Your task to perform on an android device: Go to notification settings Image 0: 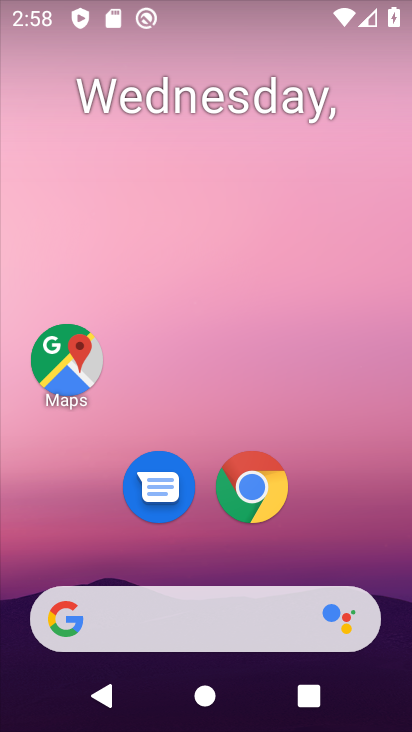
Step 0: drag from (358, 570) to (343, 110)
Your task to perform on an android device: Go to notification settings Image 1: 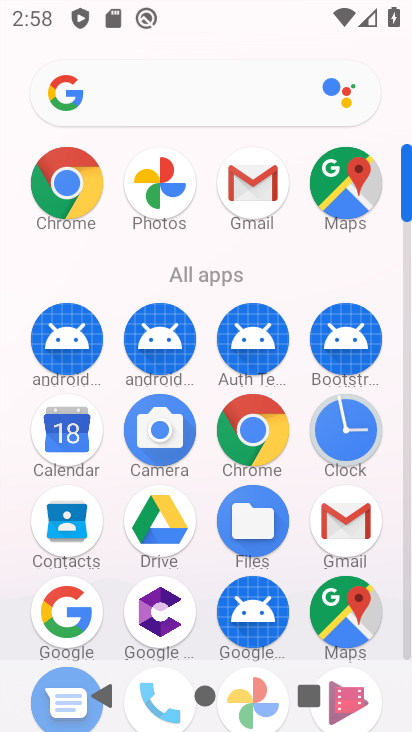
Step 1: drag from (207, 481) to (206, 210)
Your task to perform on an android device: Go to notification settings Image 2: 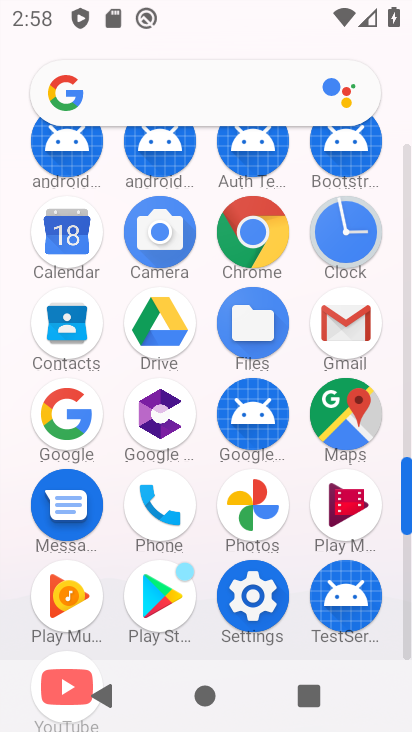
Step 2: click (257, 612)
Your task to perform on an android device: Go to notification settings Image 3: 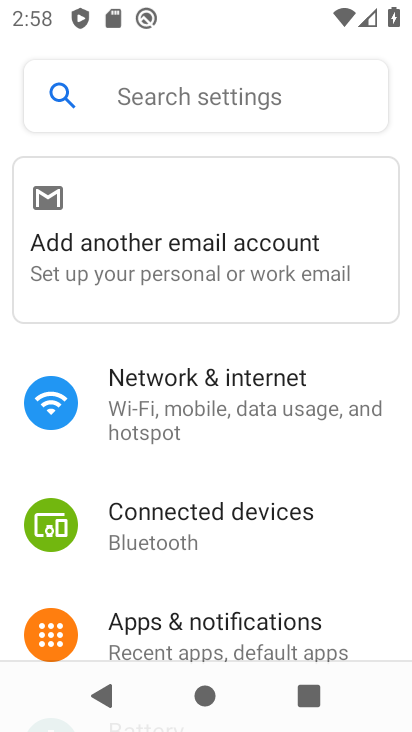
Step 3: drag from (335, 581) to (341, 417)
Your task to perform on an android device: Go to notification settings Image 4: 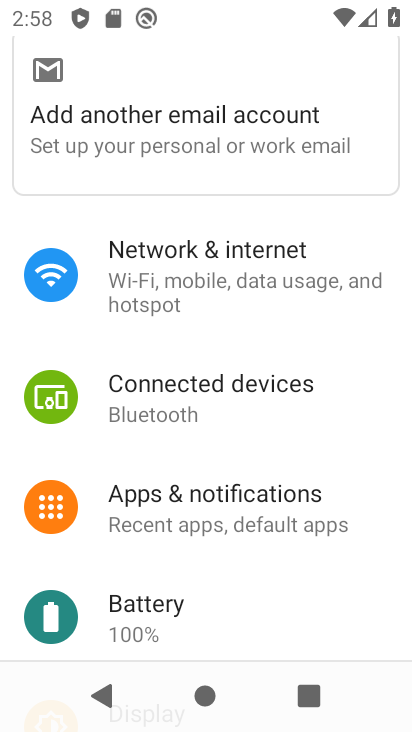
Step 4: drag from (361, 612) to (375, 482)
Your task to perform on an android device: Go to notification settings Image 5: 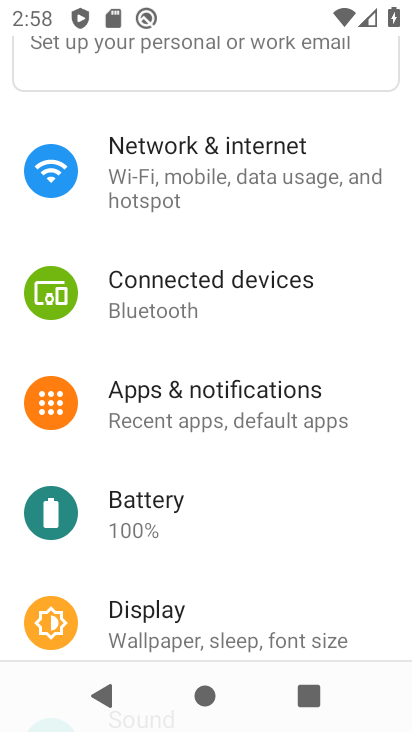
Step 5: drag from (346, 575) to (357, 460)
Your task to perform on an android device: Go to notification settings Image 6: 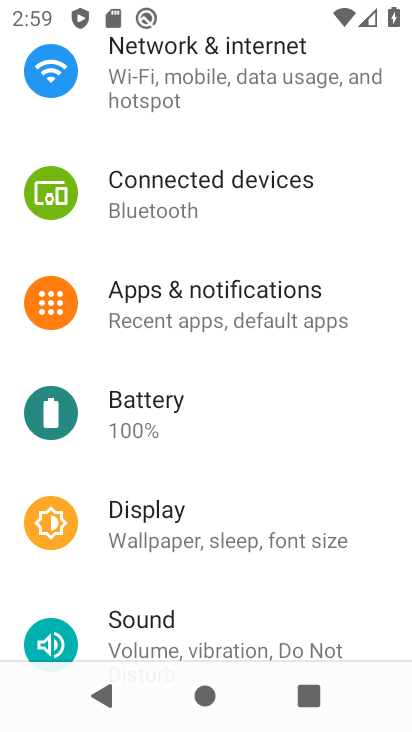
Step 6: drag from (332, 564) to (348, 378)
Your task to perform on an android device: Go to notification settings Image 7: 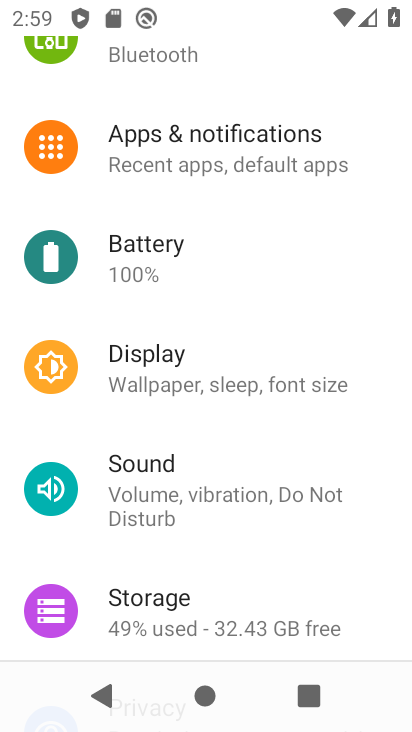
Step 7: drag from (332, 574) to (333, 419)
Your task to perform on an android device: Go to notification settings Image 8: 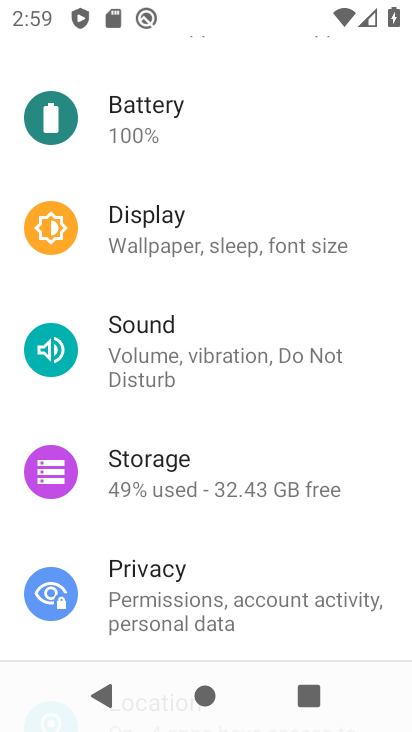
Step 8: drag from (325, 548) to (331, 418)
Your task to perform on an android device: Go to notification settings Image 9: 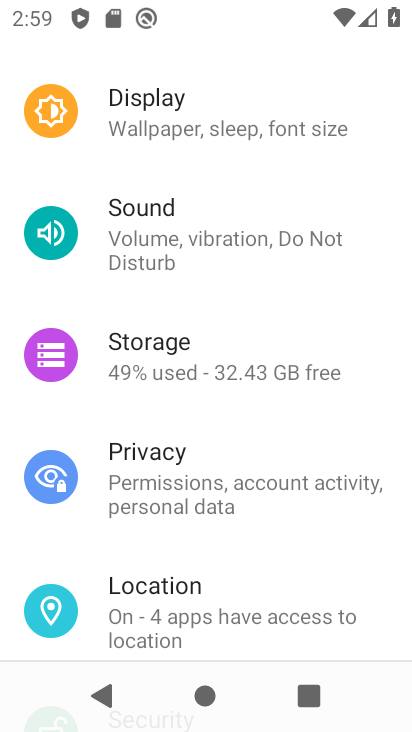
Step 9: drag from (323, 600) to (337, 489)
Your task to perform on an android device: Go to notification settings Image 10: 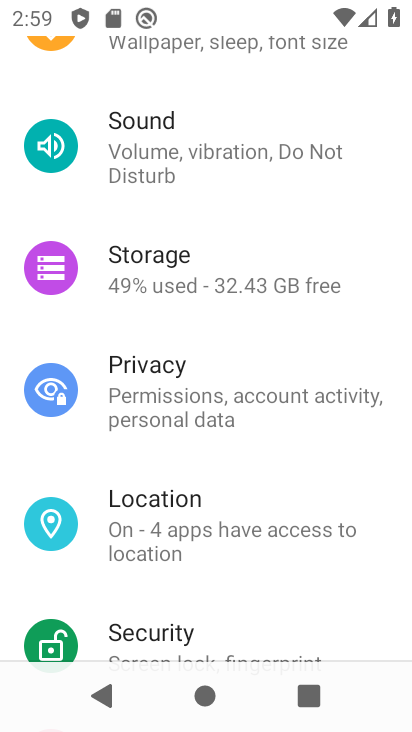
Step 10: drag from (330, 641) to (332, 468)
Your task to perform on an android device: Go to notification settings Image 11: 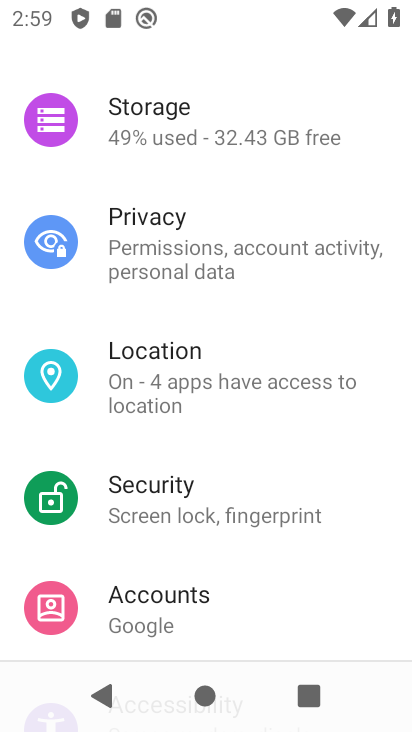
Step 11: drag from (307, 608) to (340, 463)
Your task to perform on an android device: Go to notification settings Image 12: 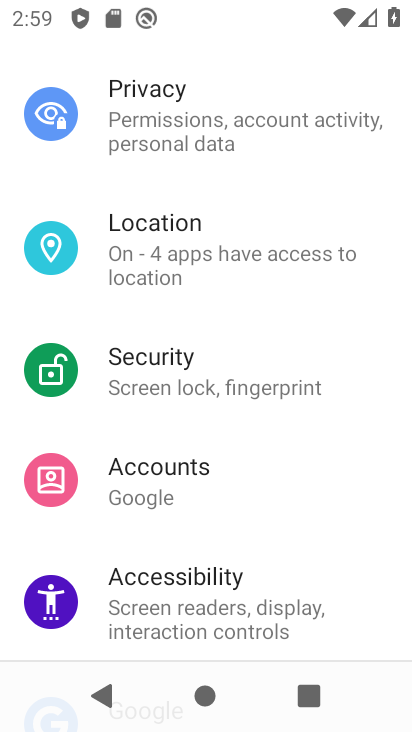
Step 12: drag from (331, 502) to (357, 349)
Your task to perform on an android device: Go to notification settings Image 13: 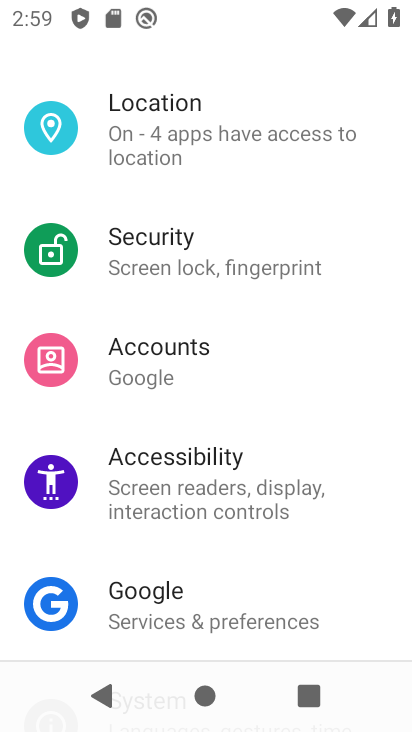
Step 13: drag from (350, 477) to (356, 424)
Your task to perform on an android device: Go to notification settings Image 14: 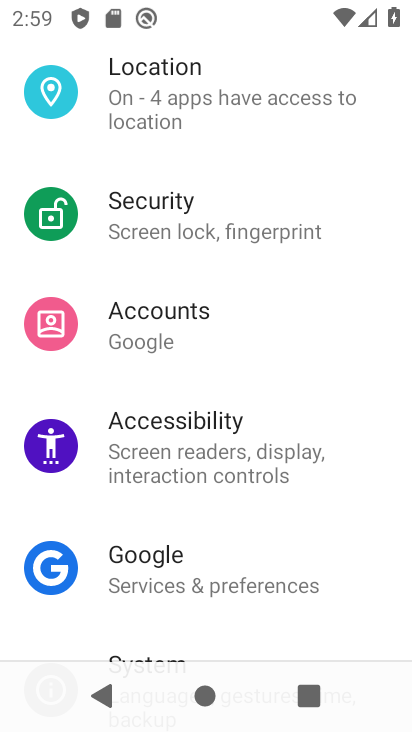
Step 14: drag from (360, 284) to (362, 478)
Your task to perform on an android device: Go to notification settings Image 15: 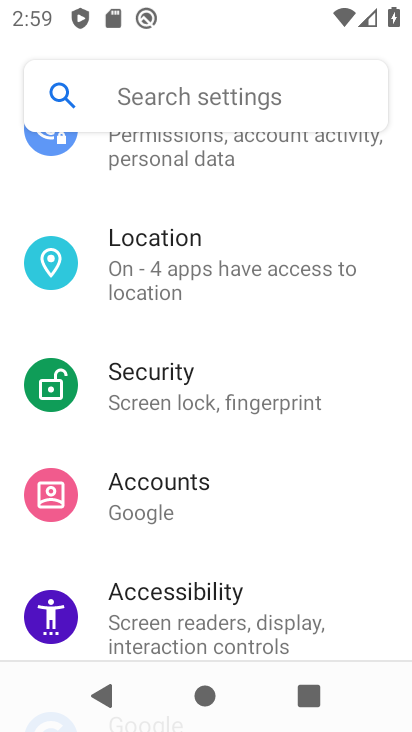
Step 15: drag from (354, 312) to (338, 481)
Your task to perform on an android device: Go to notification settings Image 16: 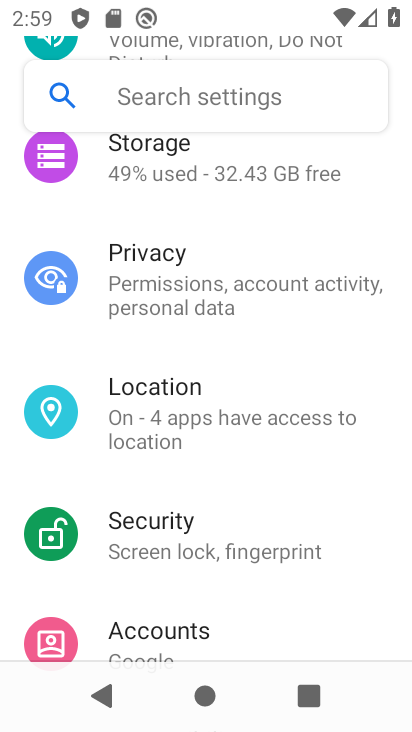
Step 16: drag from (347, 316) to (348, 457)
Your task to perform on an android device: Go to notification settings Image 17: 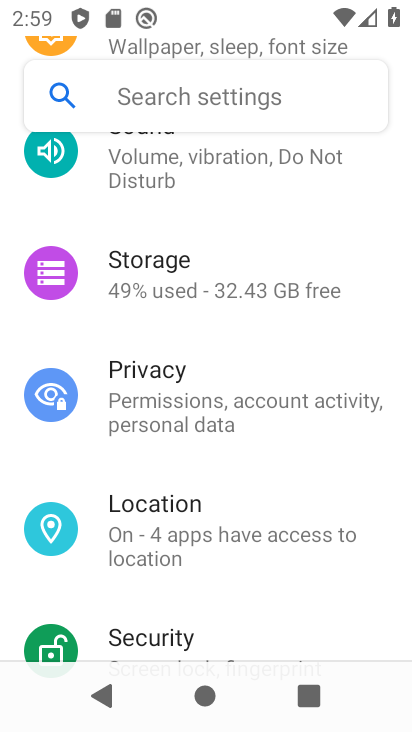
Step 17: drag from (361, 268) to (364, 462)
Your task to perform on an android device: Go to notification settings Image 18: 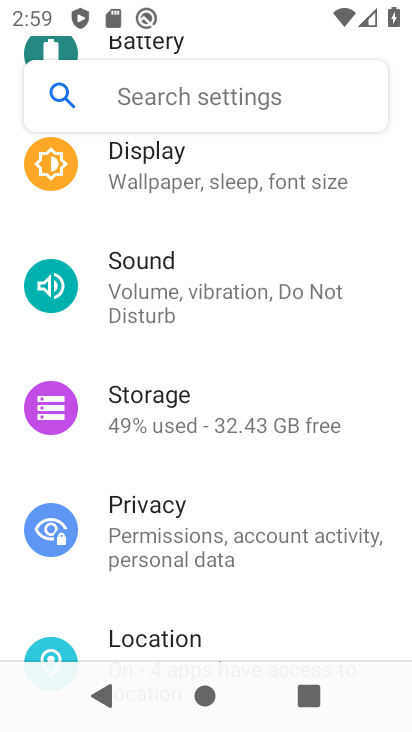
Step 18: drag from (368, 240) to (362, 426)
Your task to perform on an android device: Go to notification settings Image 19: 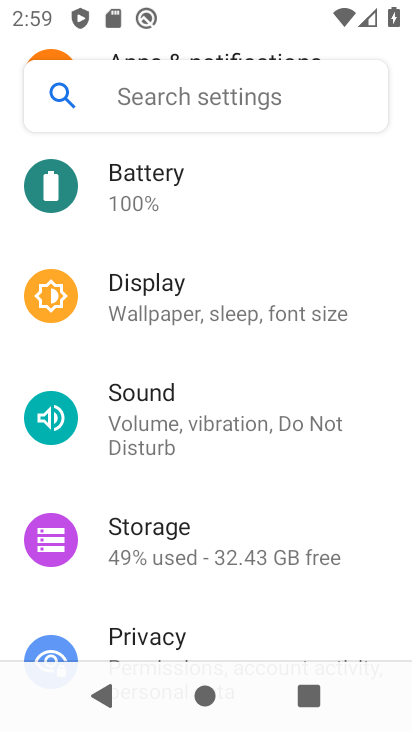
Step 19: drag from (358, 237) to (357, 388)
Your task to perform on an android device: Go to notification settings Image 20: 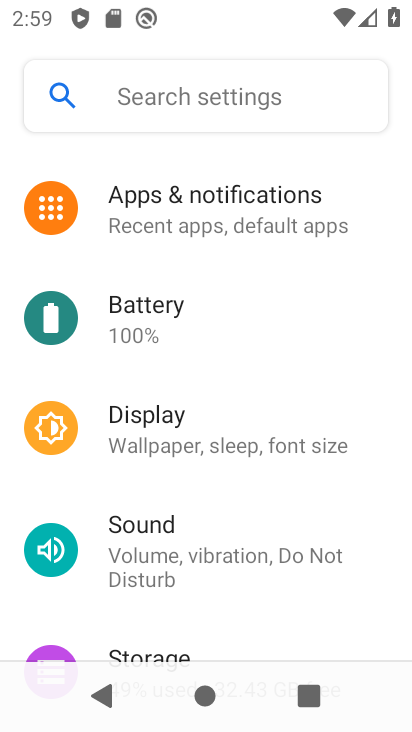
Step 20: click (299, 225)
Your task to perform on an android device: Go to notification settings Image 21: 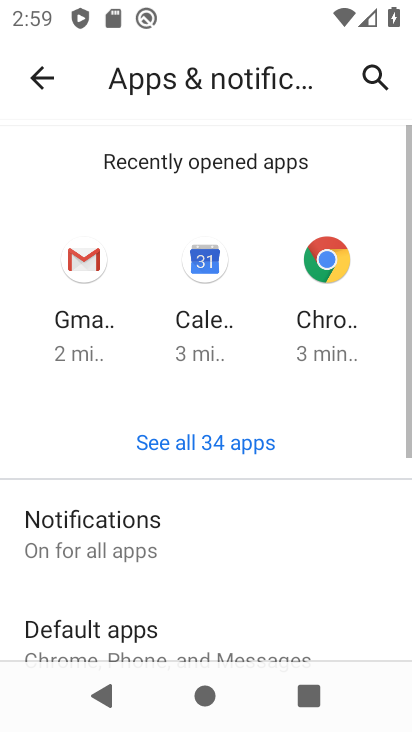
Step 21: click (146, 544)
Your task to perform on an android device: Go to notification settings Image 22: 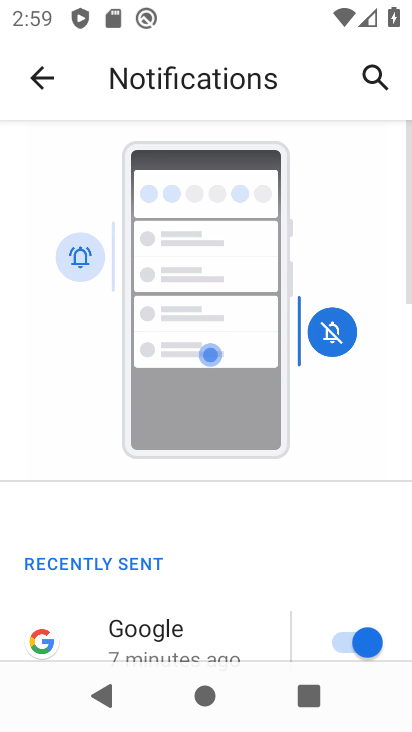
Step 22: task complete